Your task to perform on an android device: Go to Reddit.com Image 0: 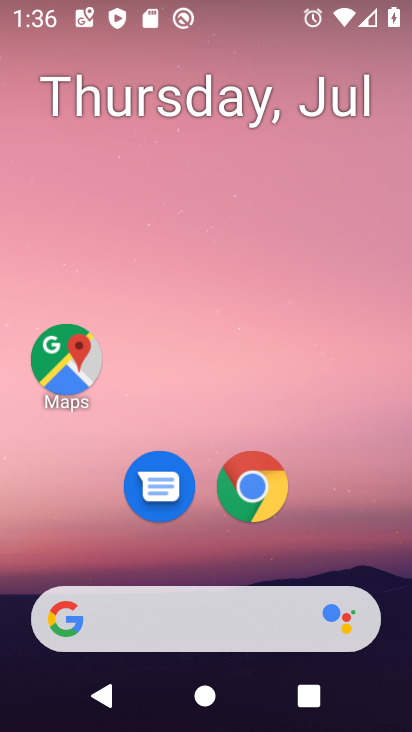
Step 0: click (278, 492)
Your task to perform on an android device: Go to Reddit.com Image 1: 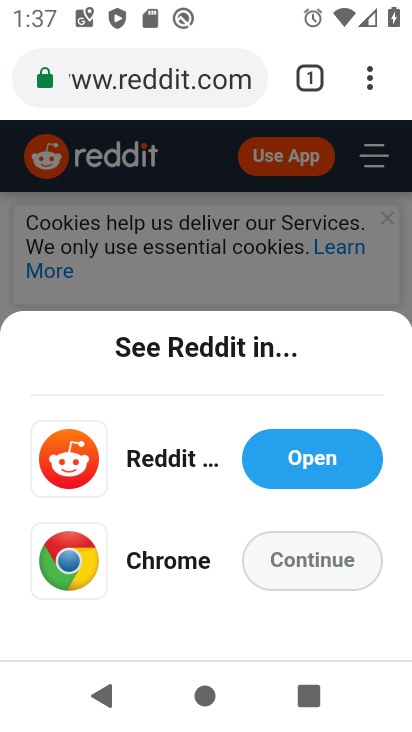
Step 1: task complete